Your task to perform on an android device: turn on showing notifications on the lock screen Image 0: 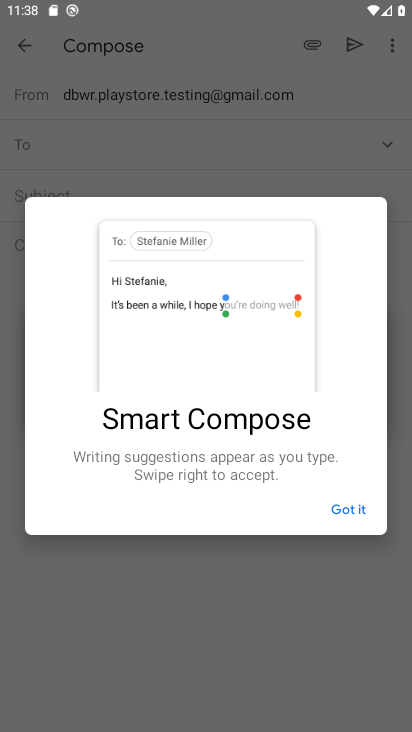
Step 0: press home button
Your task to perform on an android device: turn on showing notifications on the lock screen Image 1: 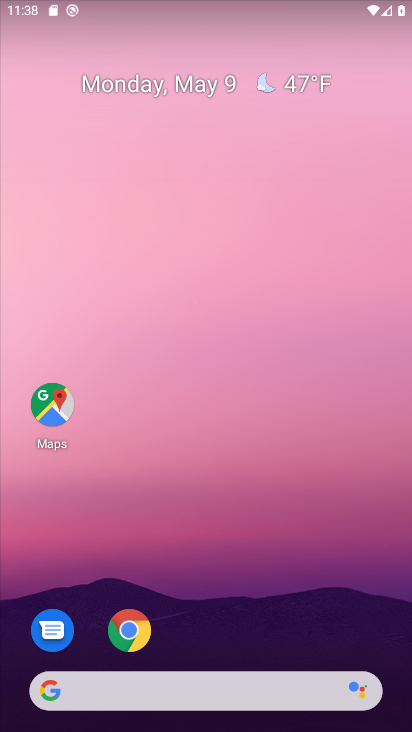
Step 1: drag from (225, 596) to (114, 195)
Your task to perform on an android device: turn on showing notifications on the lock screen Image 2: 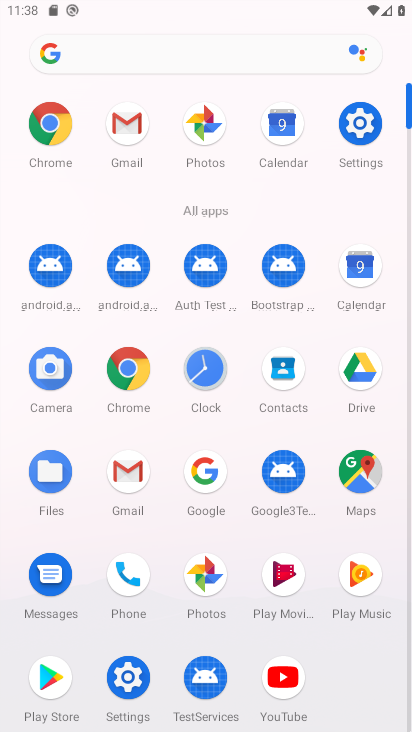
Step 2: click (356, 123)
Your task to perform on an android device: turn on showing notifications on the lock screen Image 3: 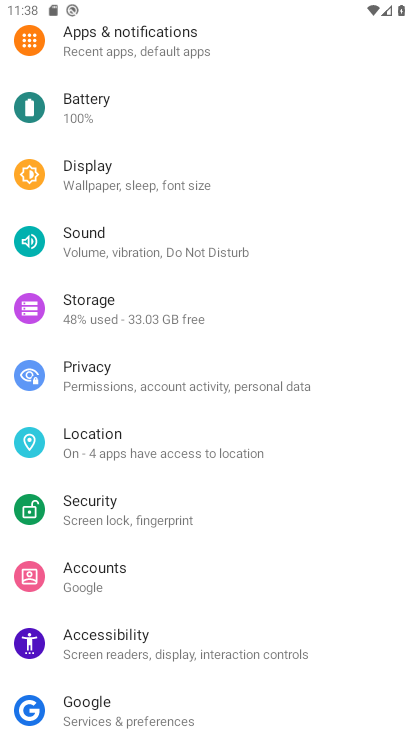
Step 3: click (131, 46)
Your task to perform on an android device: turn on showing notifications on the lock screen Image 4: 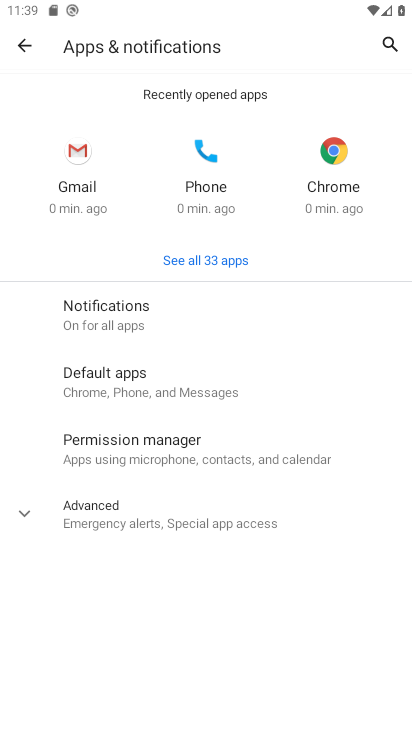
Step 4: click (89, 313)
Your task to perform on an android device: turn on showing notifications on the lock screen Image 5: 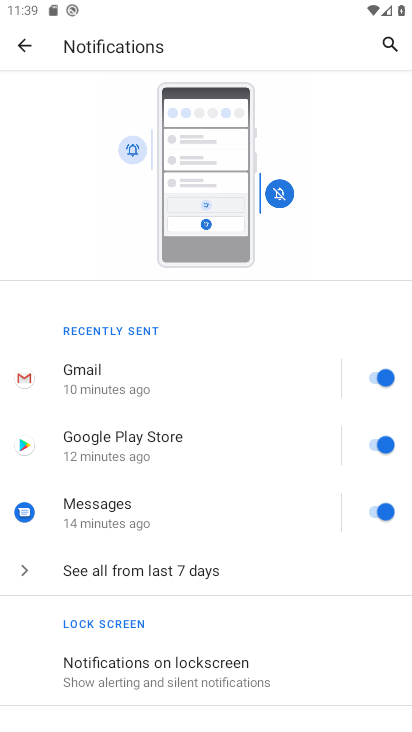
Step 5: click (196, 669)
Your task to perform on an android device: turn on showing notifications on the lock screen Image 6: 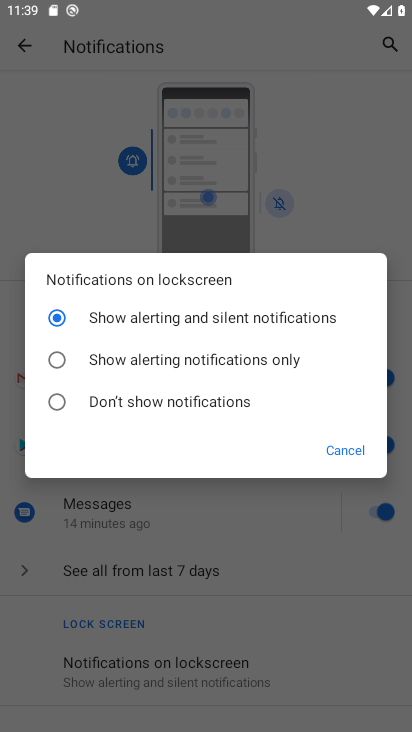
Step 6: task complete